Your task to perform on an android device: turn notification dots on Image 0: 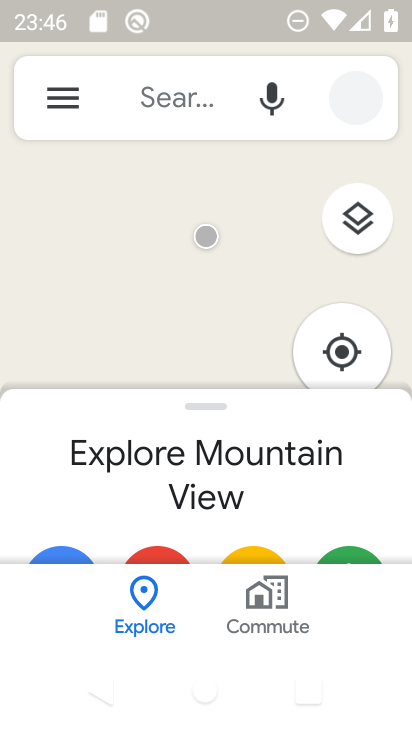
Step 0: drag from (197, 554) to (230, 175)
Your task to perform on an android device: turn notification dots on Image 1: 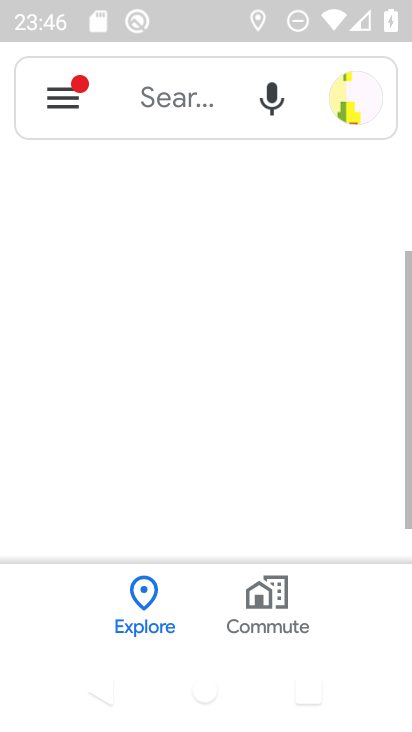
Step 1: press home button
Your task to perform on an android device: turn notification dots on Image 2: 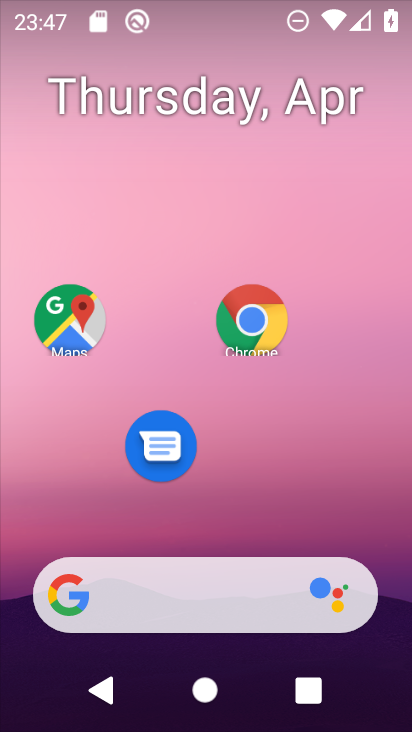
Step 2: drag from (193, 426) to (151, 195)
Your task to perform on an android device: turn notification dots on Image 3: 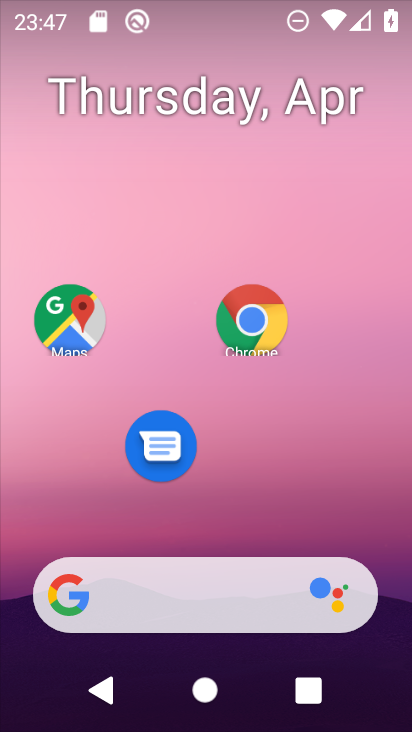
Step 3: drag from (223, 516) to (199, 57)
Your task to perform on an android device: turn notification dots on Image 4: 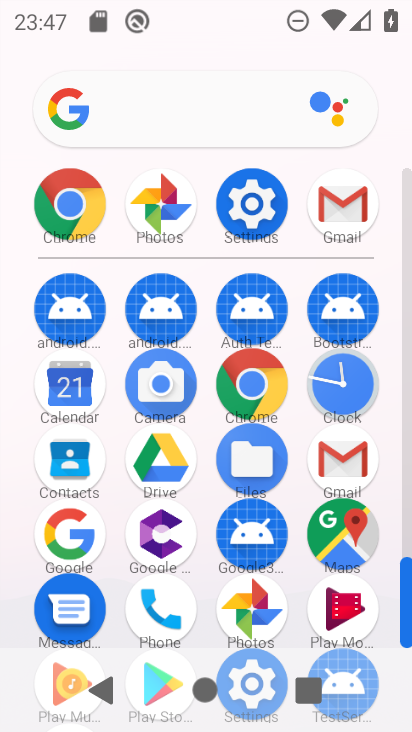
Step 4: click (257, 201)
Your task to perform on an android device: turn notification dots on Image 5: 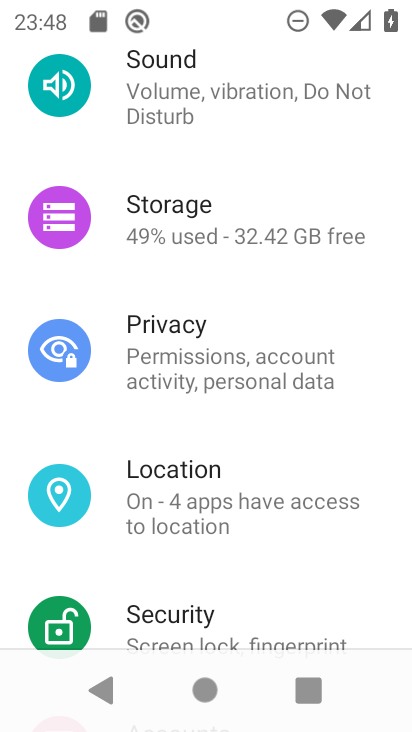
Step 5: drag from (192, 210) to (278, 665)
Your task to perform on an android device: turn notification dots on Image 6: 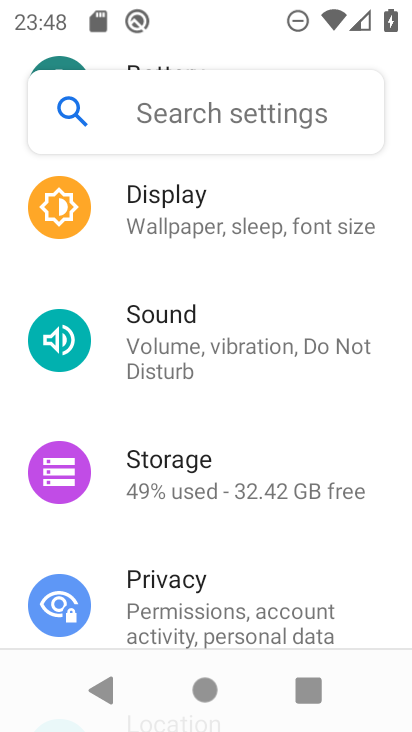
Step 6: drag from (249, 255) to (326, 627)
Your task to perform on an android device: turn notification dots on Image 7: 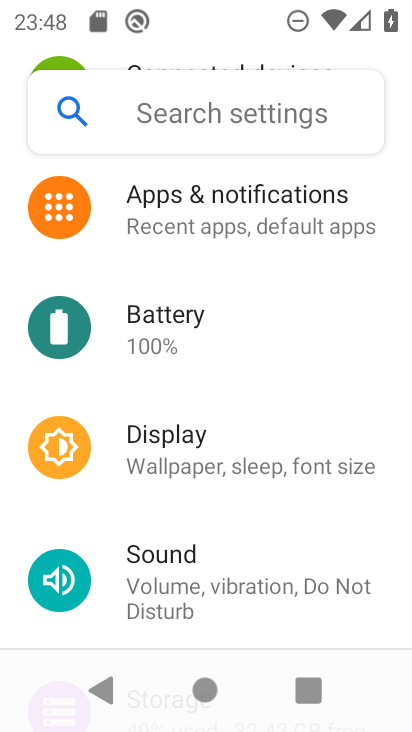
Step 7: click (149, 237)
Your task to perform on an android device: turn notification dots on Image 8: 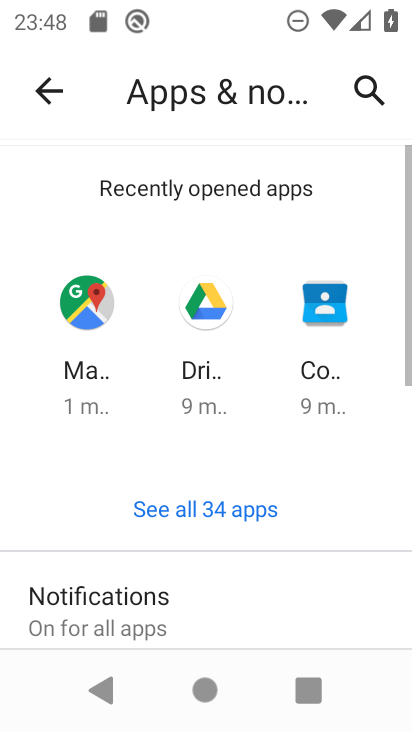
Step 8: drag from (245, 625) to (302, 50)
Your task to perform on an android device: turn notification dots on Image 9: 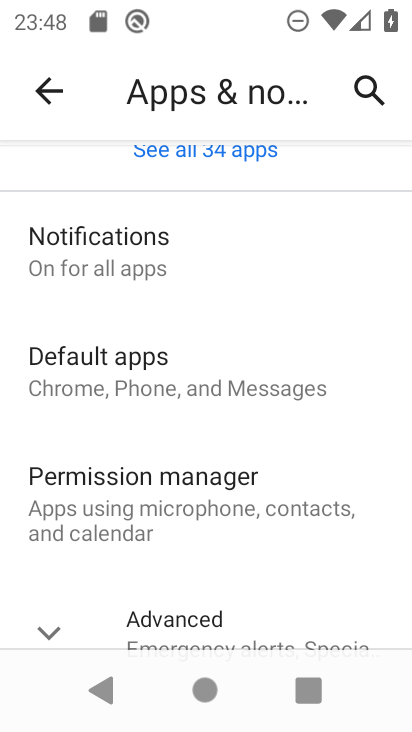
Step 9: click (188, 275)
Your task to perform on an android device: turn notification dots on Image 10: 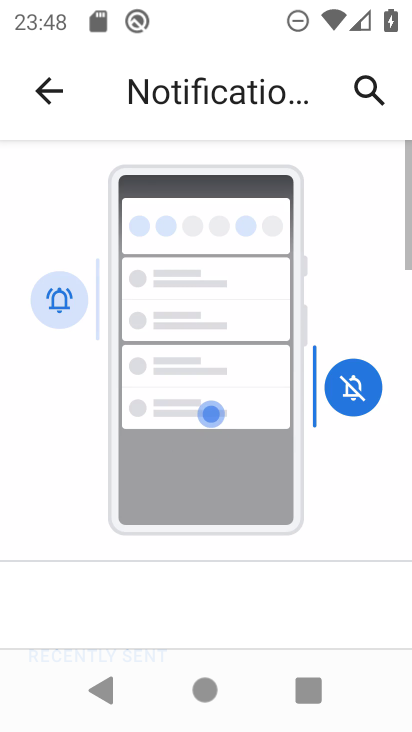
Step 10: drag from (188, 608) to (230, 177)
Your task to perform on an android device: turn notification dots on Image 11: 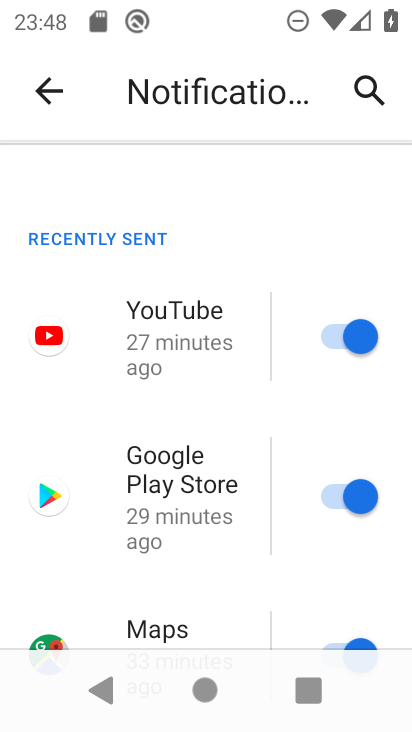
Step 11: drag from (252, 345) to (282, 158)
Your task to perform on an android device: turn notification dots on Image 12: 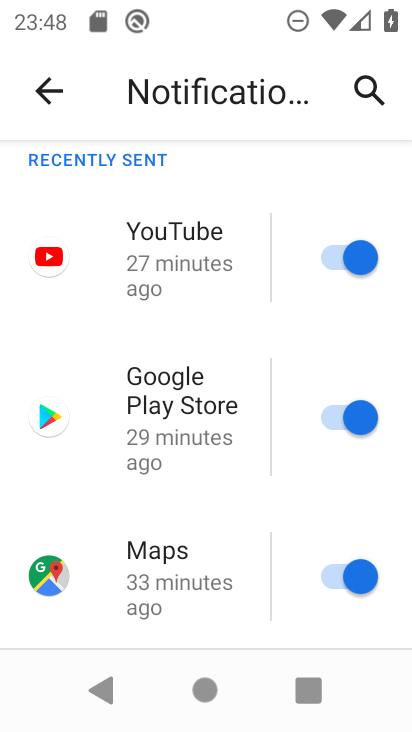
Step 12: drag from (216, 560) to (249, 159)
Your task to perform on an android device: turn notification dots on Image 13: 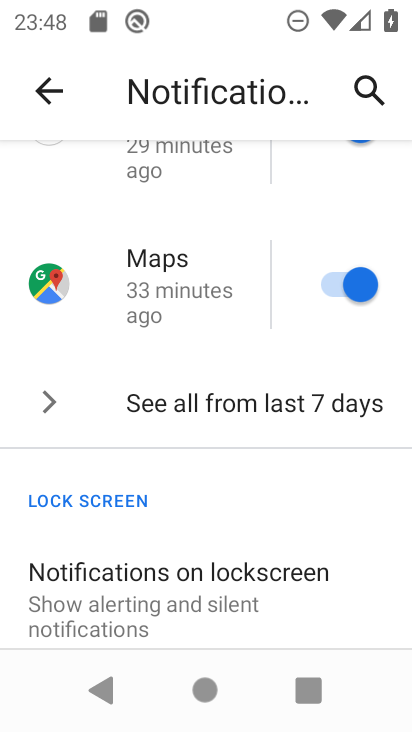
Step 13: drag from (211, 498) to (243, 175)
Your task to perform on an android device: turn notification dots on Image 14: 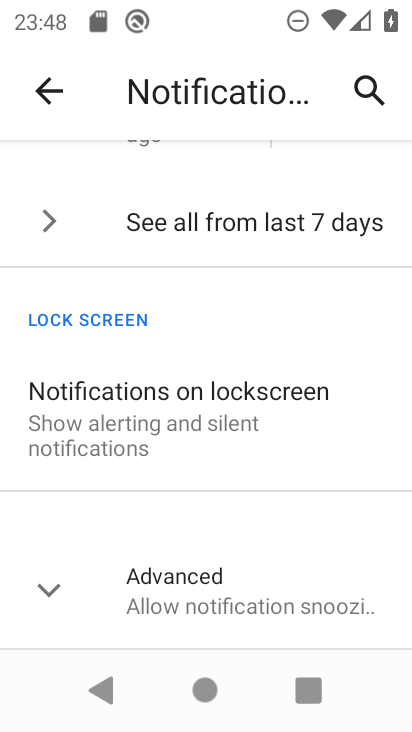
Step 14: click (199, 598)
Your task to perform on an android device: turn notification dots on Image 15: 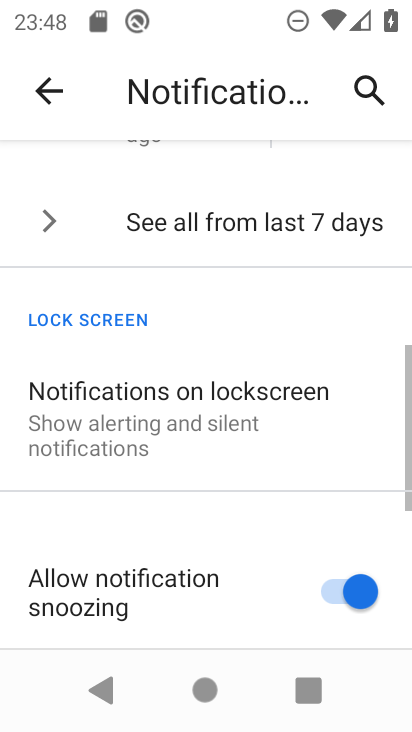
Step 15: task complete